Your task to perform on an android device: Go to Android settings Image 0: 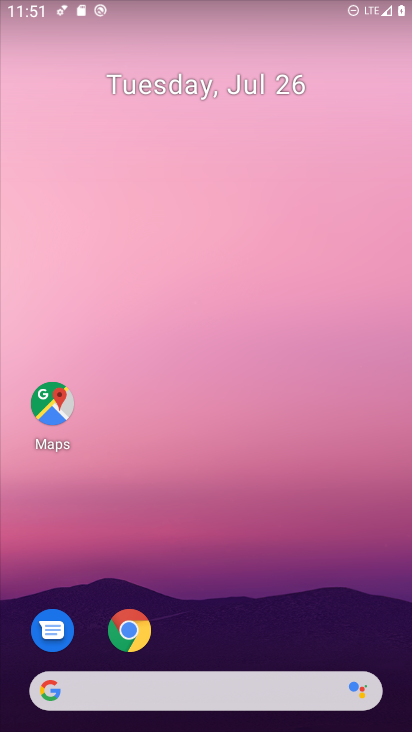
Step 0: drag from (389, 646) to (323, 200)
Your task to perform on an android device: Go to Android settings Image 1: 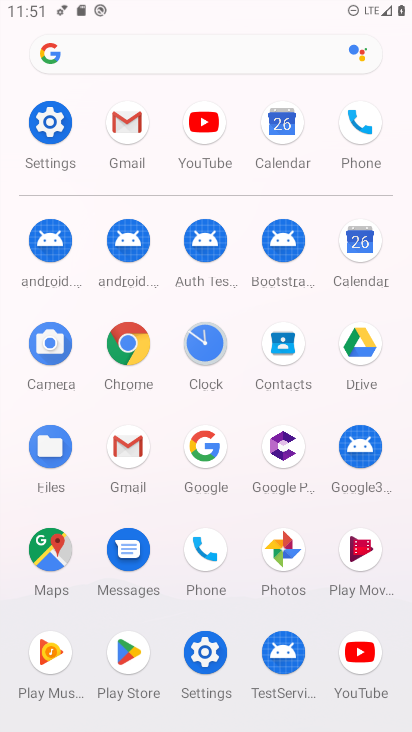
Step 1: click (203, 654)
Your task to perform on an android device: Go to Android settings Image 2: 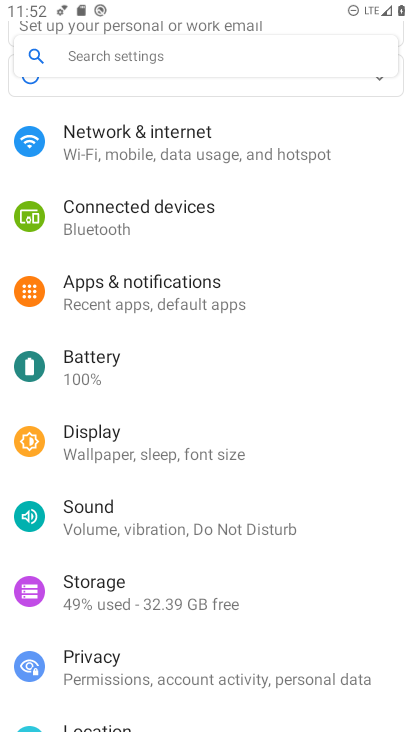
Step 2: drag from (315, 624) to (304, 230)
Your task to perform on an android device: Go to Android settings Image 3: 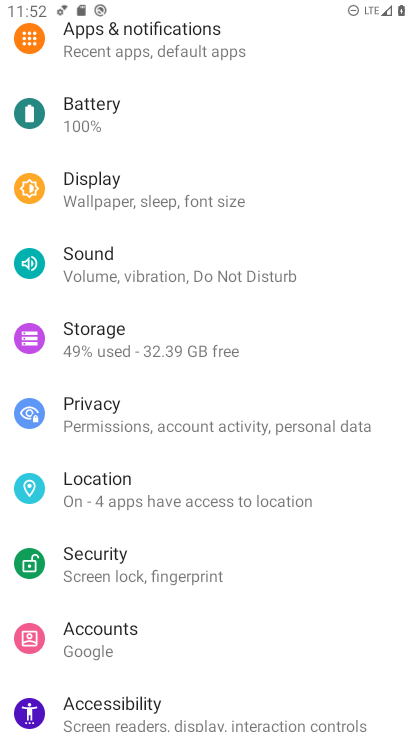
Step 3: drag from (276, 477) to (283, 252)
Your task to perform on an android device: Go to Android settings Image 4: 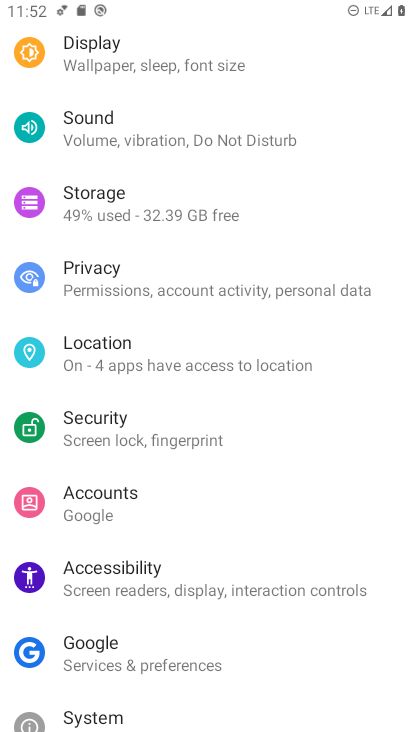
Step 4: drag from (287, 644) to (267, 353)
Your task to perform on an android device: Go to Android settings Image 5: 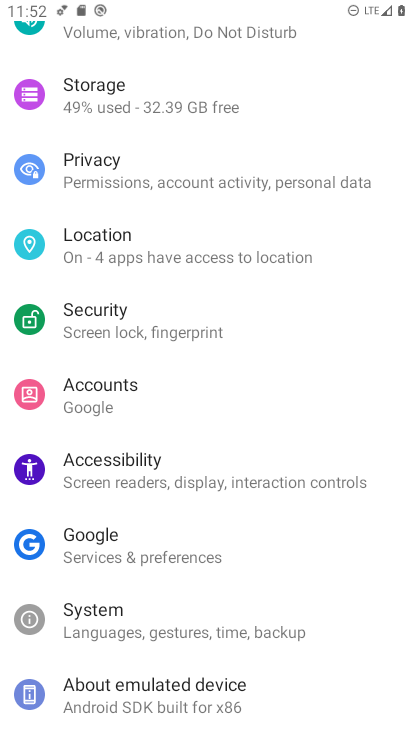
Step 5: drag from (318, 682) to (288, 275)
Your task to perform on an android device: Go to Android settings Image 6: 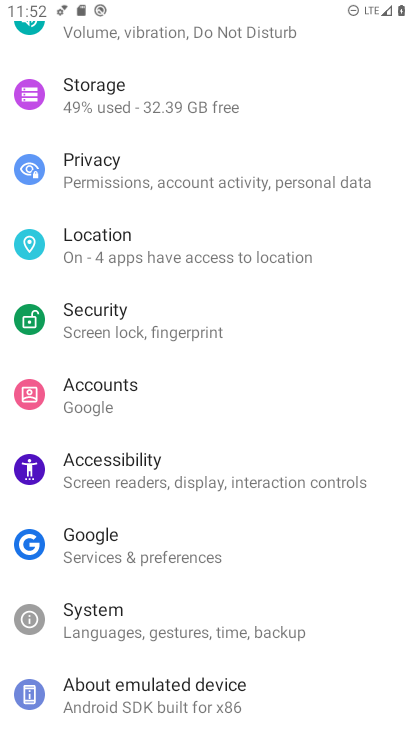
Step 6: click (111, 702)
Your task to perform on an android device: Go to Android settings Image 7: 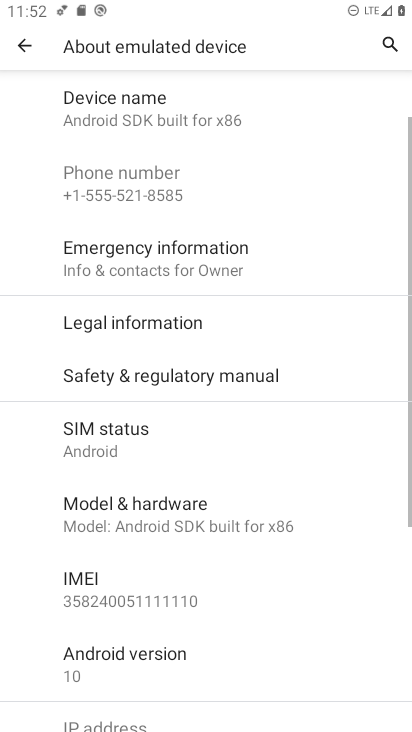
Step 7: task complete